Your task to perform on an android device: turn off airplane mode Image 0: 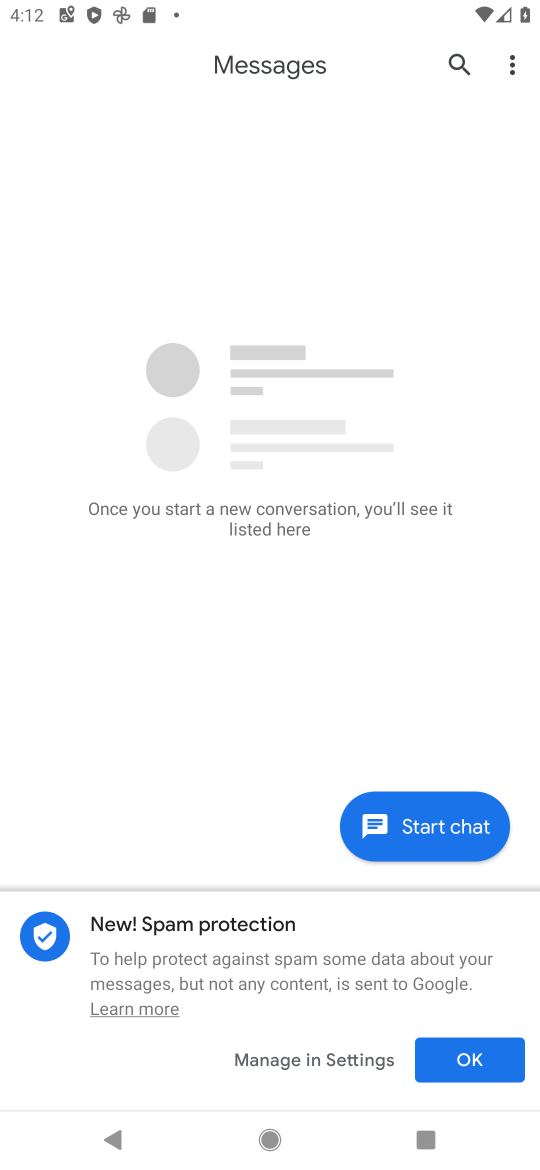
Step 0: drag from (287, 12) to (206, 750)
Your task to perform on an android device: turn off airplane mode Image 1: 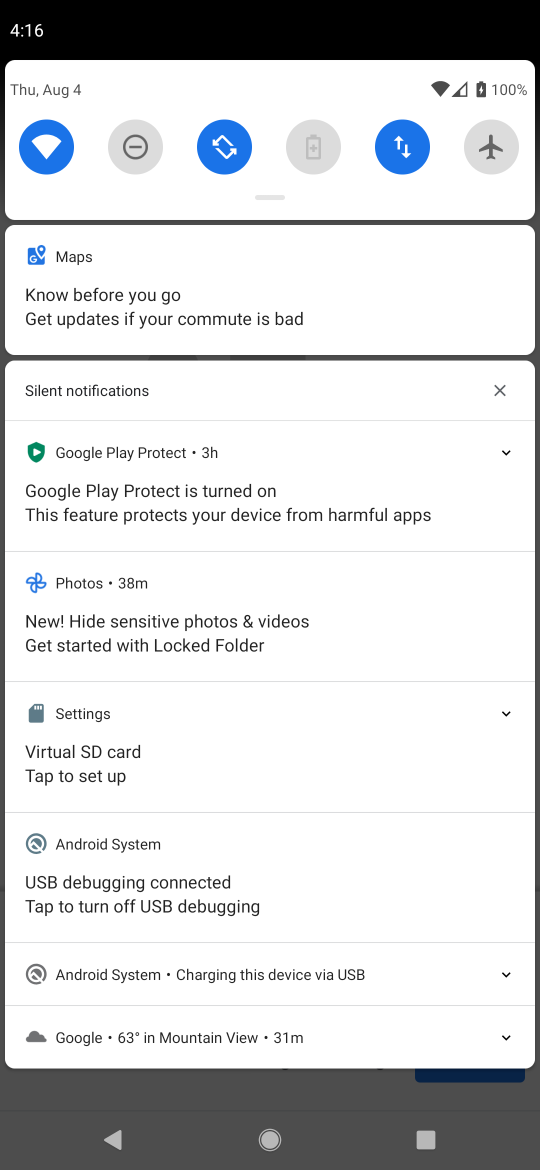
Step 1: task complete